Your task to perform on an android device: Open the map Image 0: 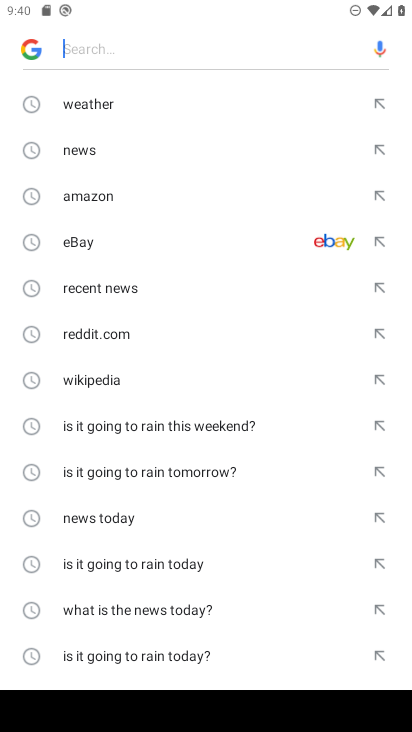
Step 0: press home button
Your task to perform on an android device: Open the map Image 1: 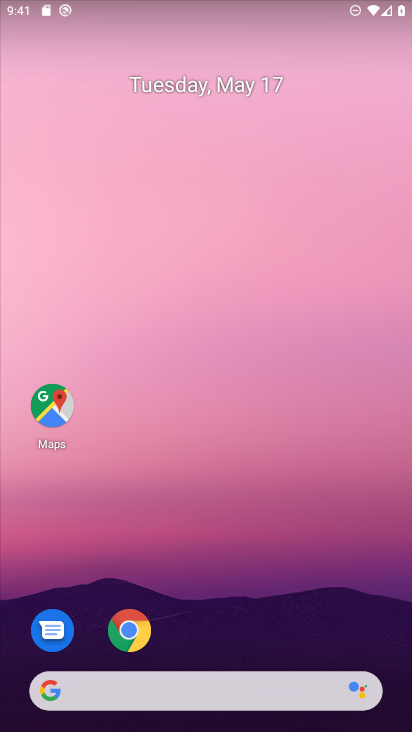
Step 1: drag from (354, 627) to (318, 208)
Your task to perform on an android device: Open the map Image 2: 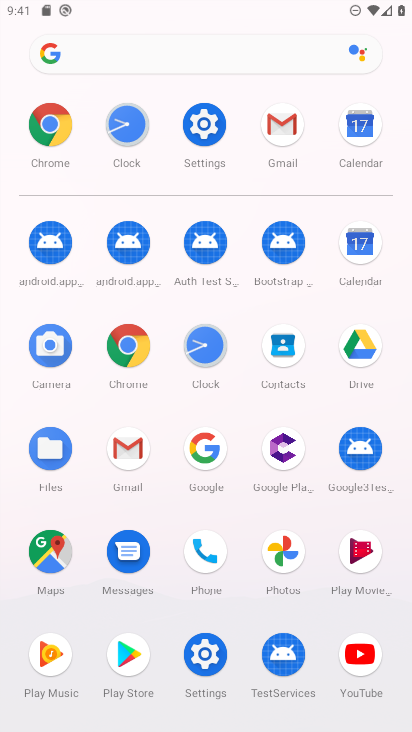
Step 2: click (54, 570)
Your task to perform on an android device: Open the map Image 3: 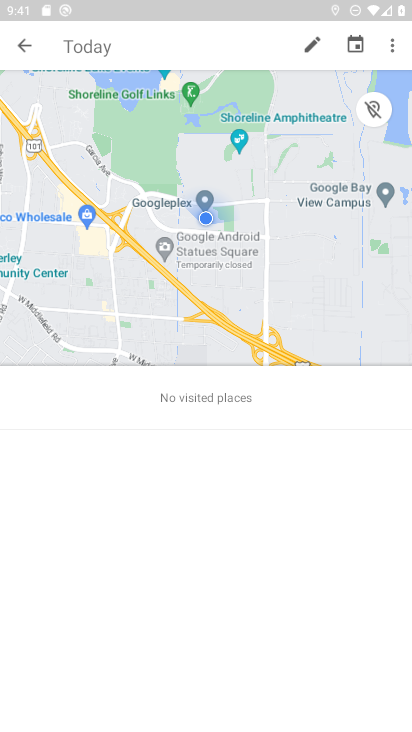
Step 3: task complete